Your task to perform on an android device: install app "Adobe Acrobat Reader" Image 0: 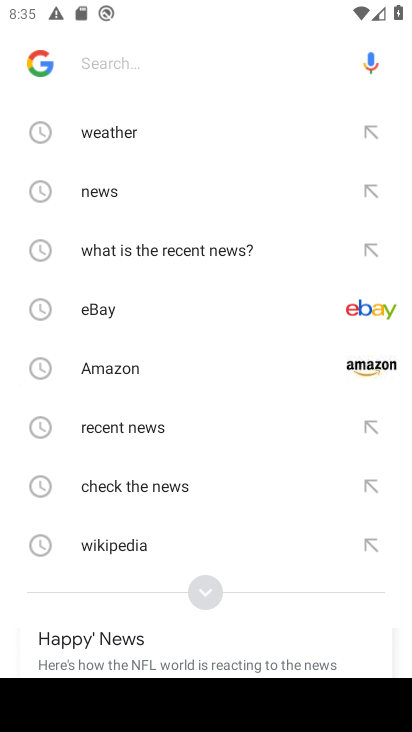
Step 0: press home button
Your task to perform on an android device: install app "Adobe Acrobat Reader" Image 1: 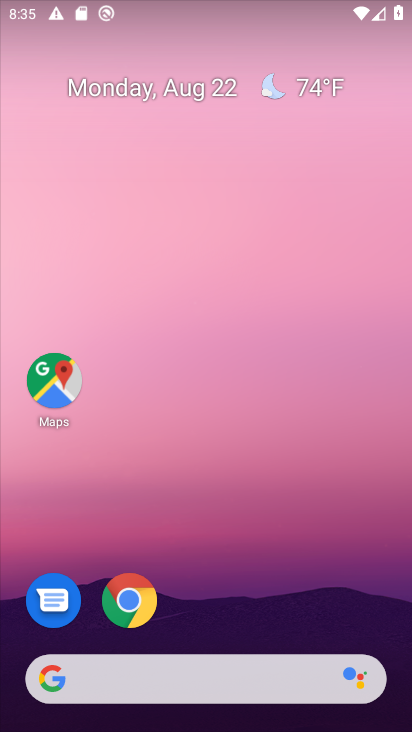
Step 1: drag from (225, 589) to (283, 74)
Your task to perform on an android device: install app "Adobe Acrobat Reader" Image 2: 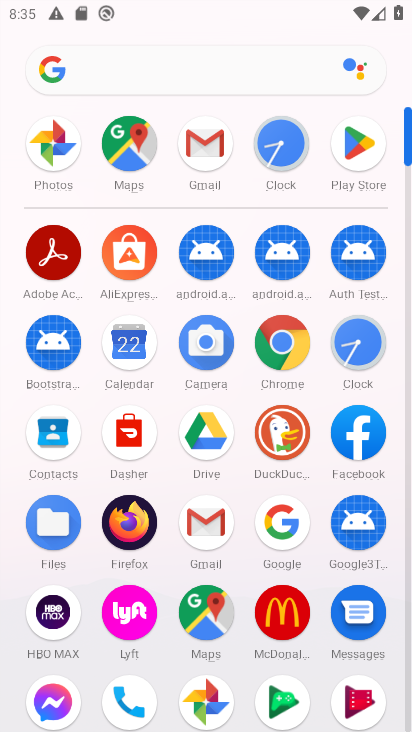
Step 2: click (356, 155)
Your task to perform on an android device: install app "Adobe Acrobat Reader" Image 3: 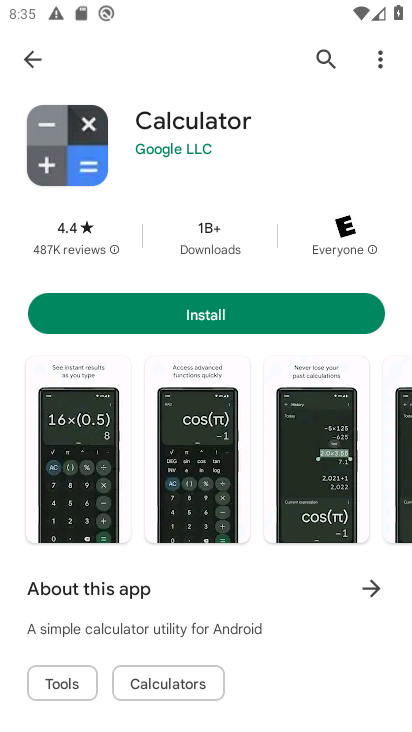
Step 3: click (317, 60)
Your task to perform on an android device: install app "Adobe Acrobat Reader" Image 4: 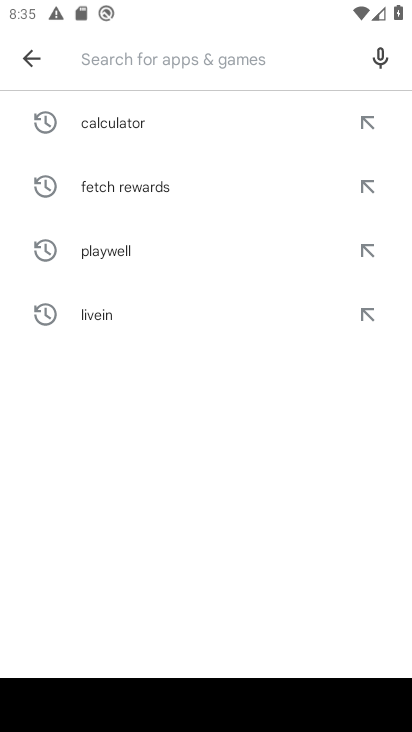
Step 4: type "Adobe Acrobat Reader"
Your task to perform on an android device: install app "Adobe Acrobat Reader" Image 5: 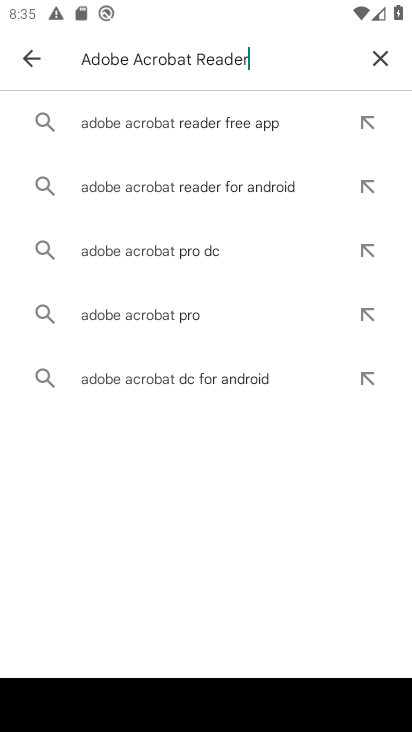
Step 5: type ""
Your task to perform on an android device: install app "Adobe Acrobat Reader" Image 6: 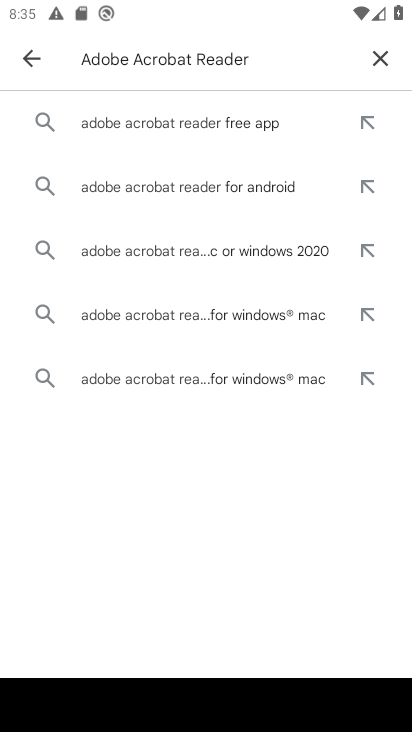
Step 6: click (138, 105)
Your task to perform on an android device: install app "Adobe Acrobat Reader" Image 7: 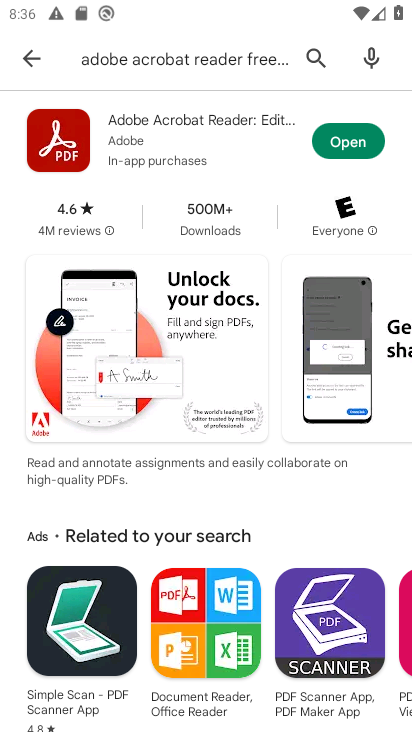
Step 7: task complete